Your task to perform on an android device: set the timer Image 0: 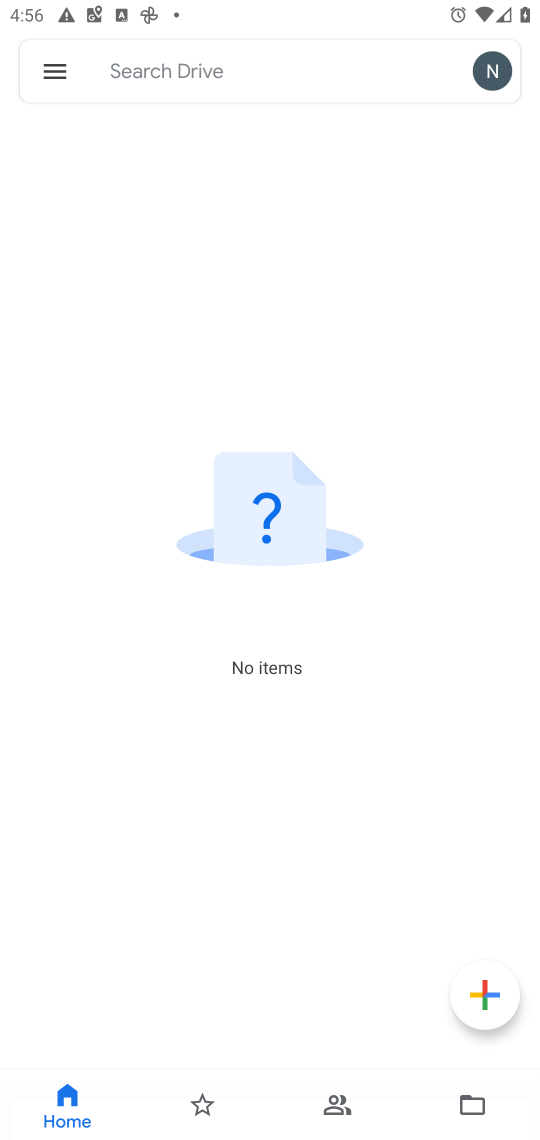
Step 0: press home button
Your task to perform on an android device: set the timer Image 1: 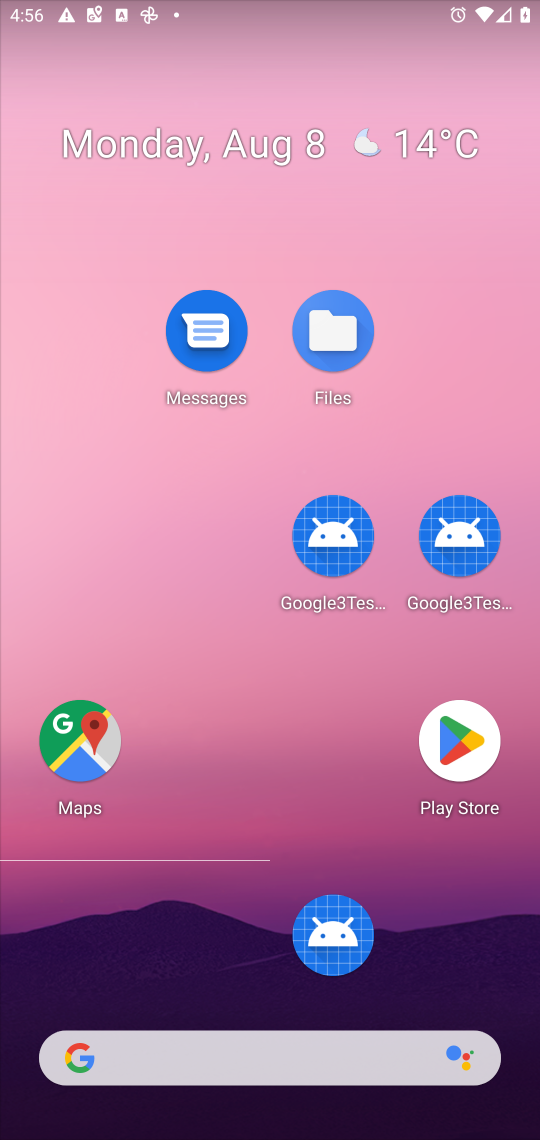
Step 1: drag from (364, 883) to (450, 305)
Your task to perform on an android device: set the timer Image 2: 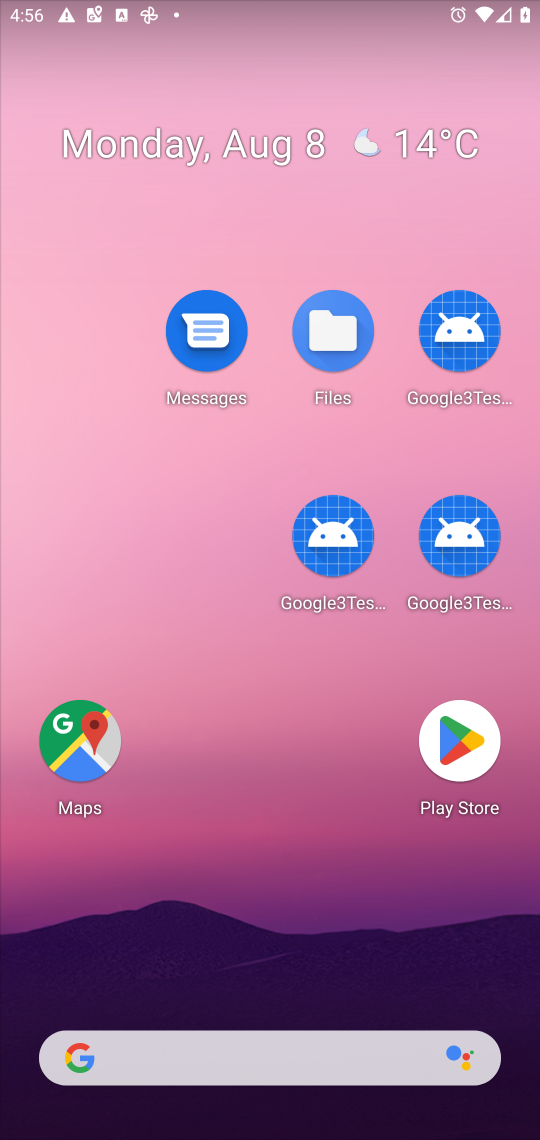
Step 2: click (307, 956)
Your task to perform on an android device: set the timer Image 3: 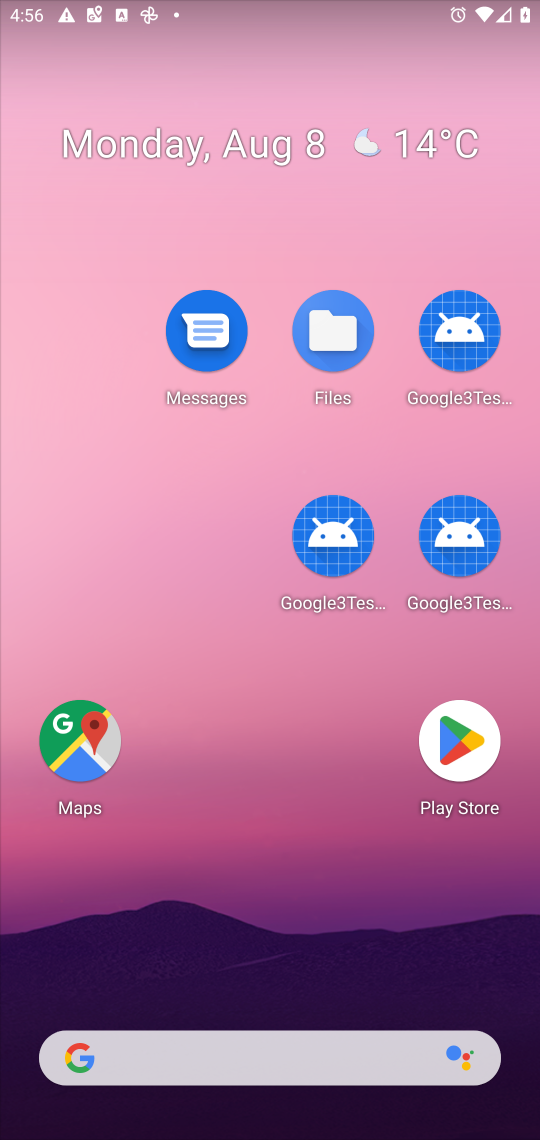
Step 3: drag from (234, 1074) to (361, 63)
Your task to perform on an android device: set the timer Image 4: 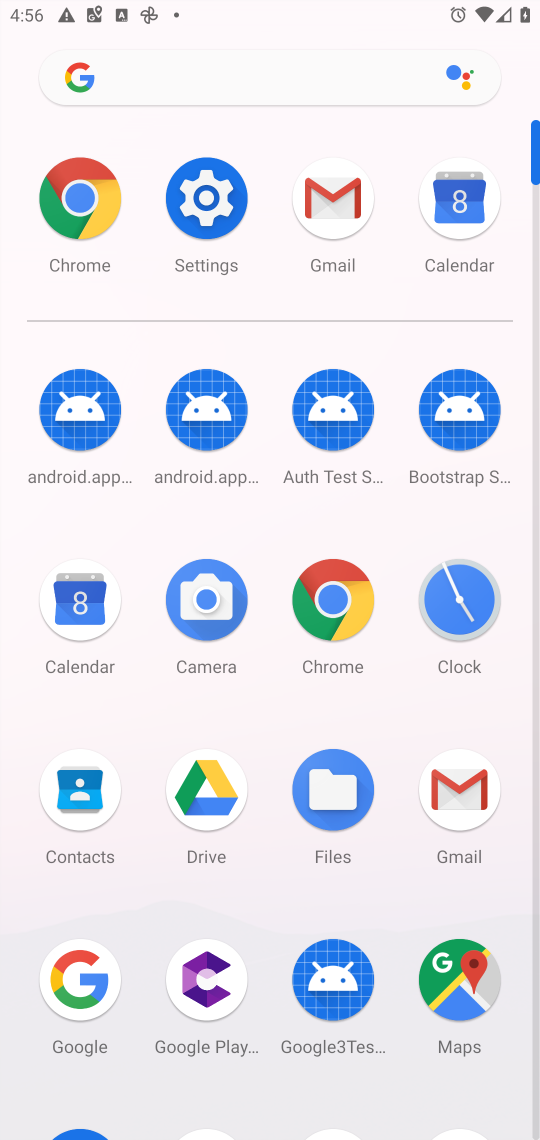
Step 4: click (470, 582)
Your task to perform on an android device: set the timer Image 5: 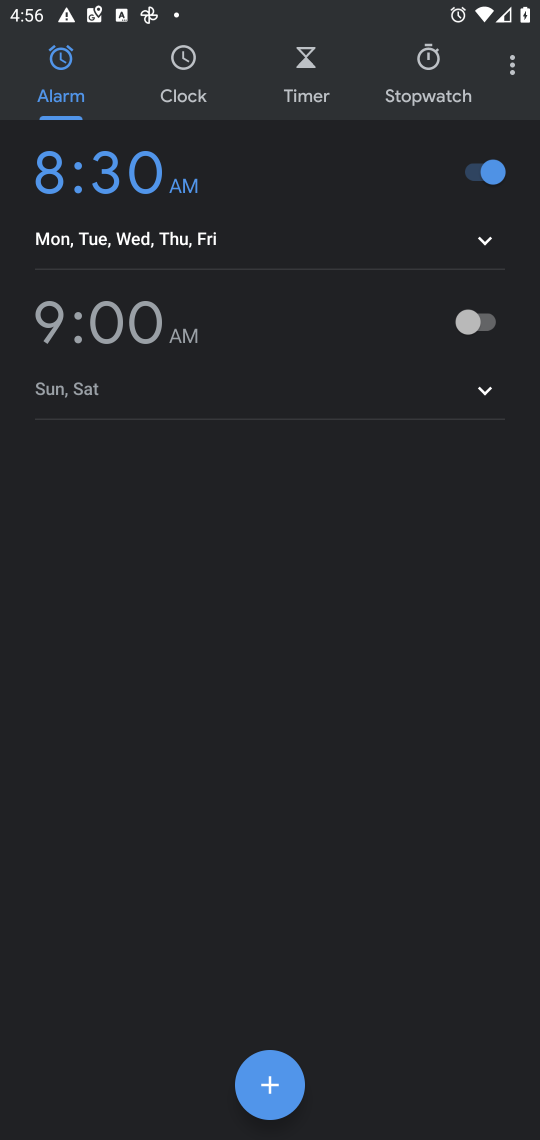
Step 5: click (307, 63)
Your task to perform on an android device: set the timer Image 6: 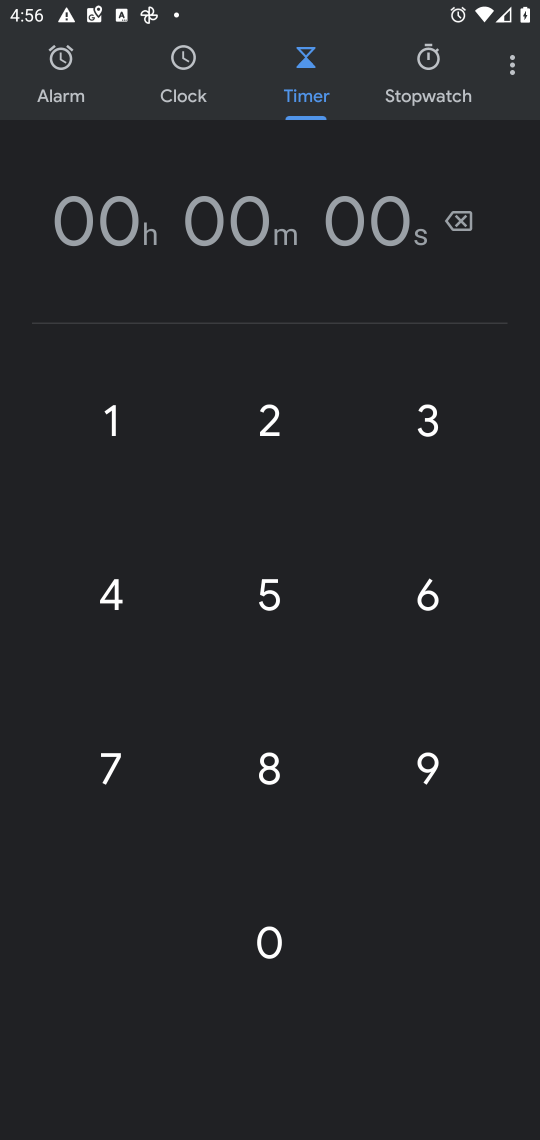
Step 6: click (275, 436)
Your task to perform on an android device: set the timer Image 7: 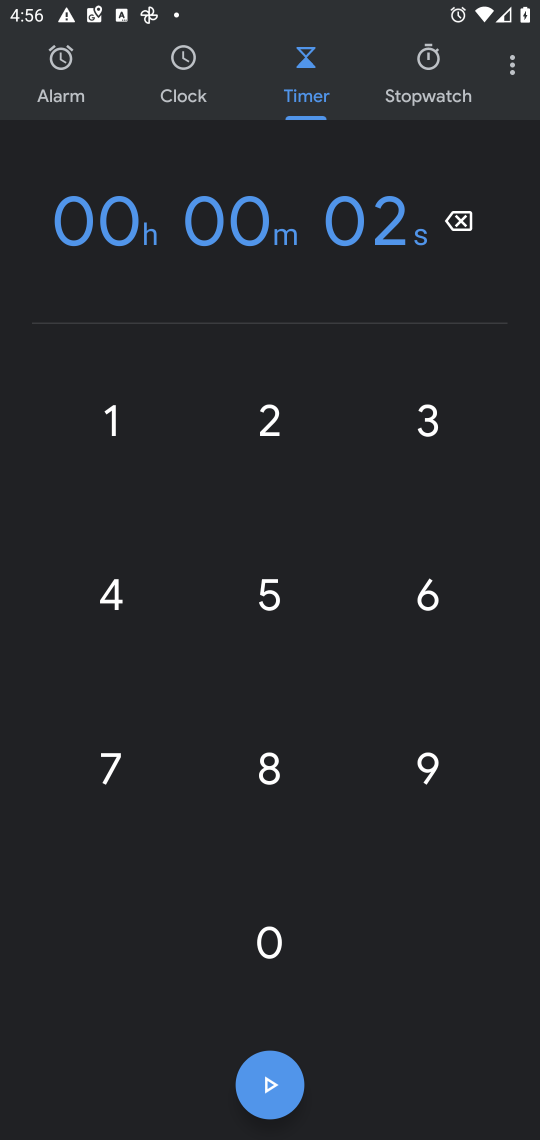
Step 7: click (428, 424)
Your task to perform on an android device: set the timer Image 8: 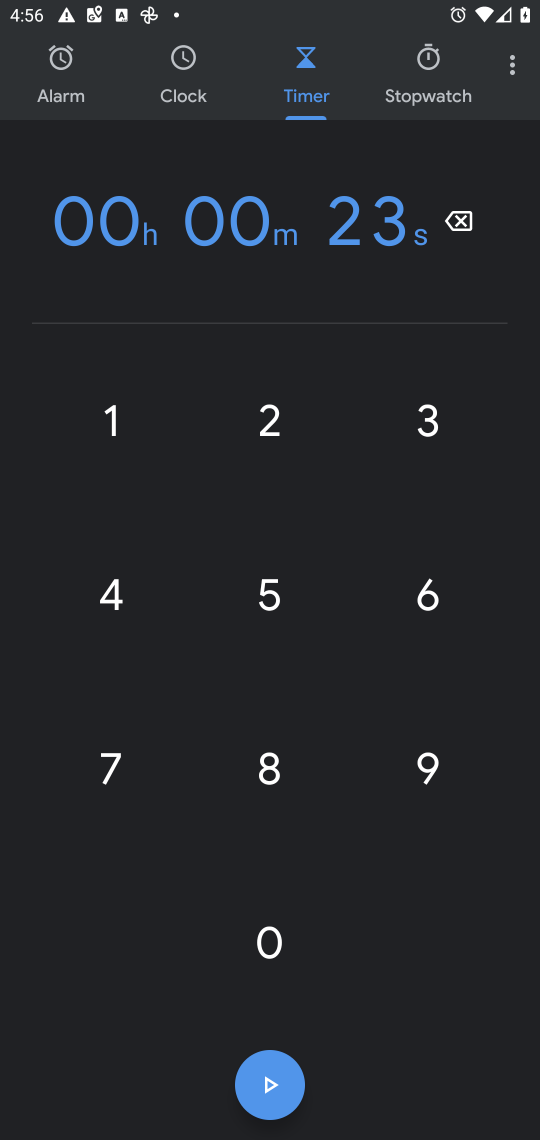
Step 8: click (277, 1098)
Your task to perform on an android device: set the timer Image 9: 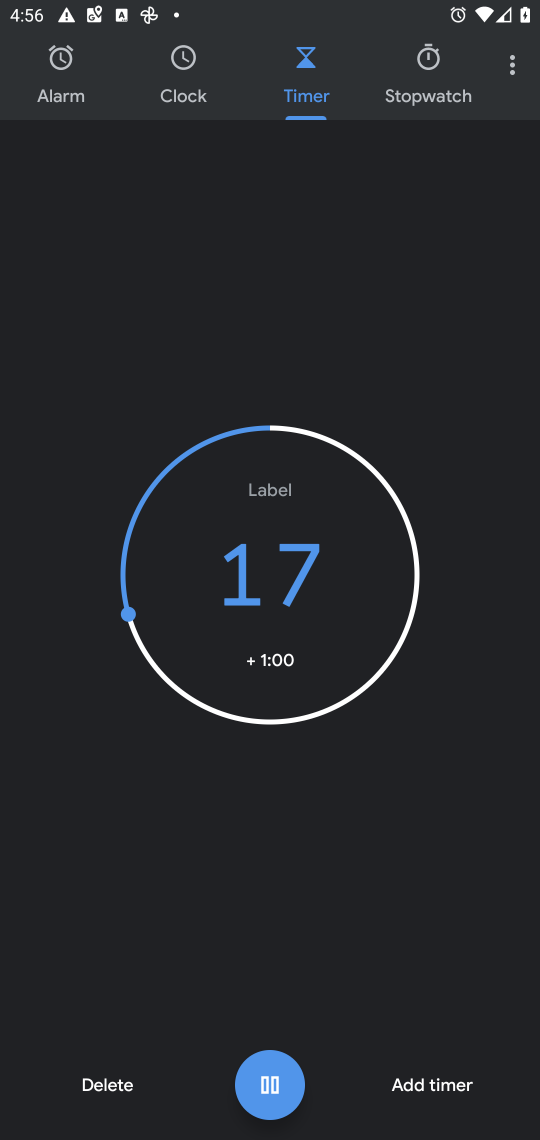
Step 9: task complete